Your task to perform on an android device: Open CNN.com Image 0: 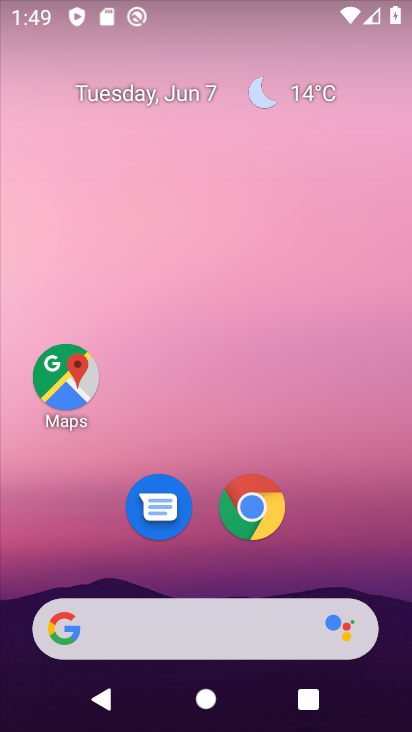
Step 0: click (252, 519)
Your task to perform on an android device: Open CNN.com Image 1: 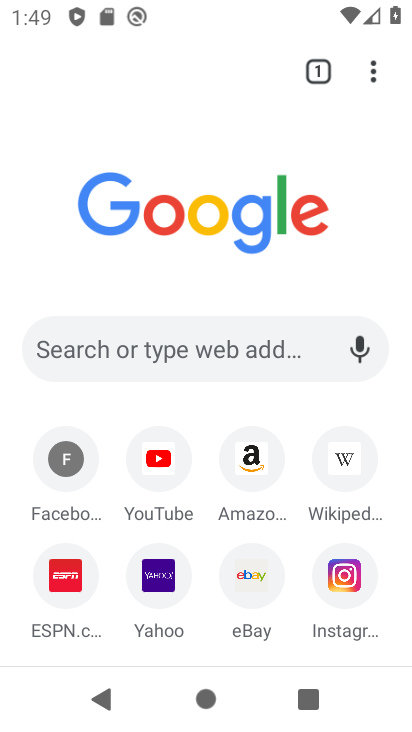
Step 1: click (273, 333)
Your task to perform on an android device: Open CNN.com Image 2: 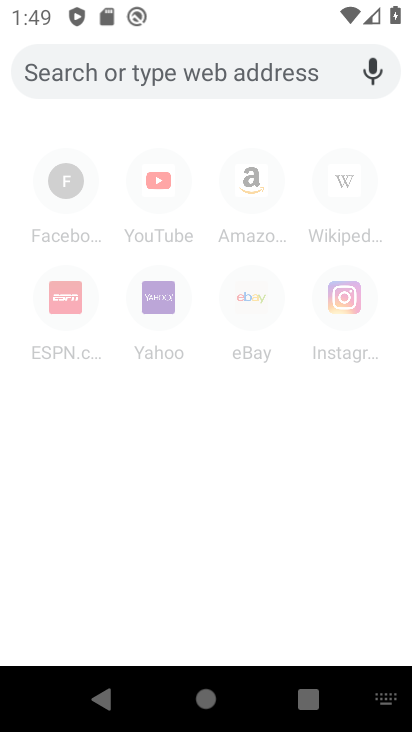
Step 2: type "cnn.com"
Your task to perform on an android device: Open CNN.com Image 3: 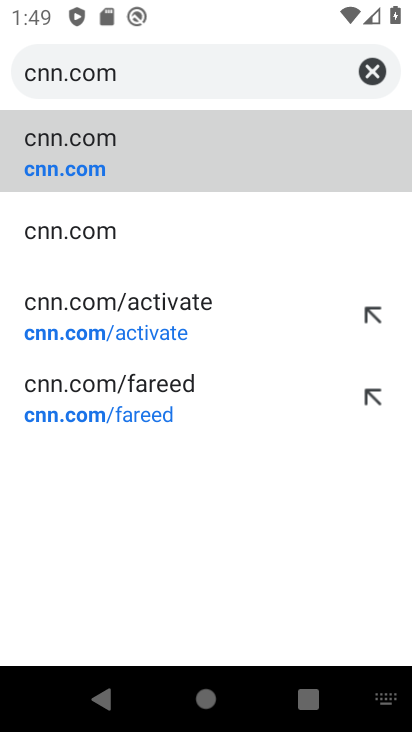
Step 3: click (57, 182)
Your task to perform on an android device: Open CNN.com Image 4: 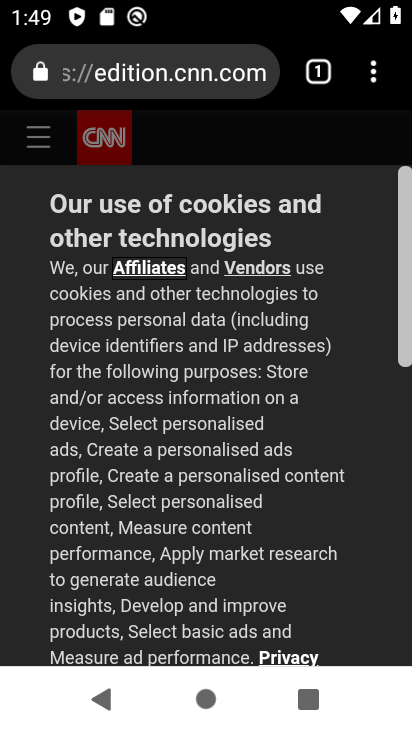
Step 4: task complete